Your task to perform on an android device: Go to location settings Image 0: 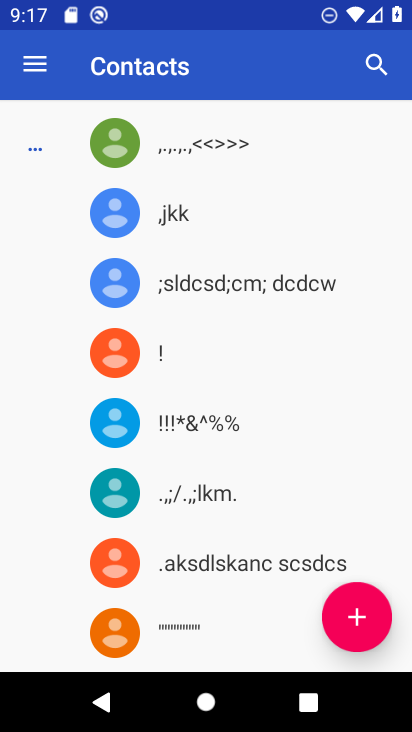
Step 0: press home button
Your task to perform on an android device: Go to location settings Image 1: 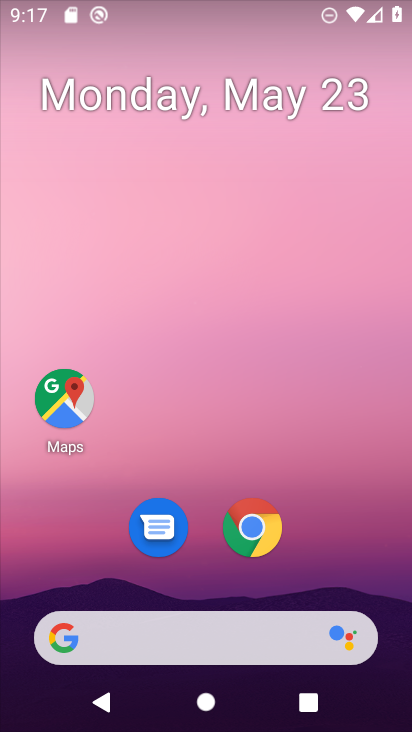
Step 1: drag from (216, 432) to (178, 40)
Your task to perform on an android device: Go to location settings Image 2: 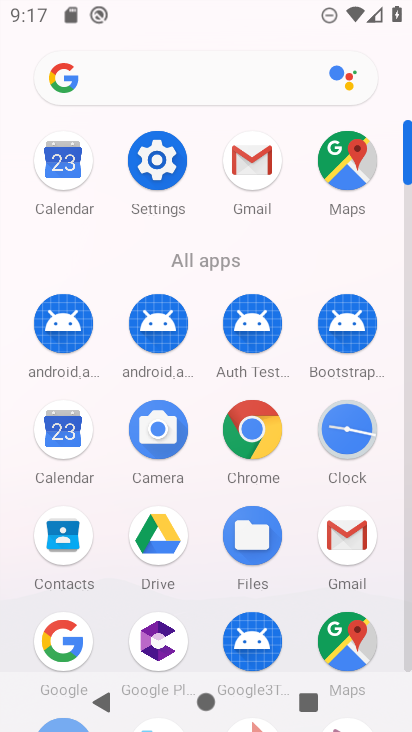
Step 2: click (168, 157)
Your task to perform on an android device: Go to location settings Image 3: 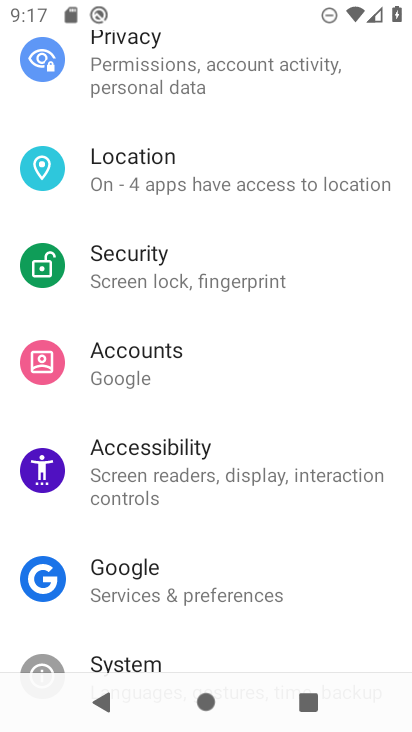
Step 3: click (238, 170)
Your task to perform on an android device: Go to location settings Image 4: 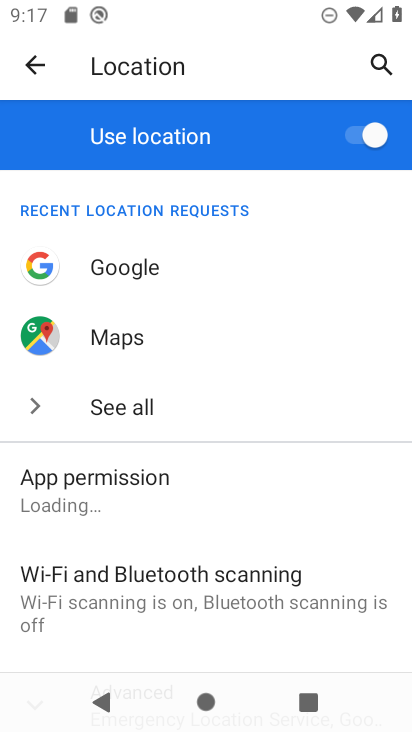
Step 4: task complete